Your task to perform on an android device: check battery use Image 0: 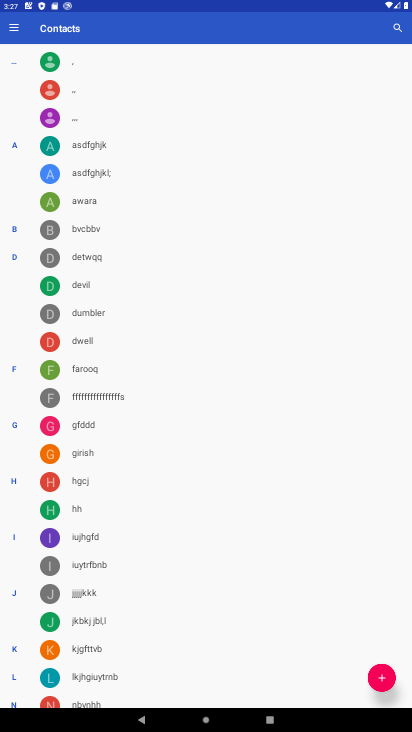
Step 0: press home button
Your task to perform on an android device: check battery use Image 1: 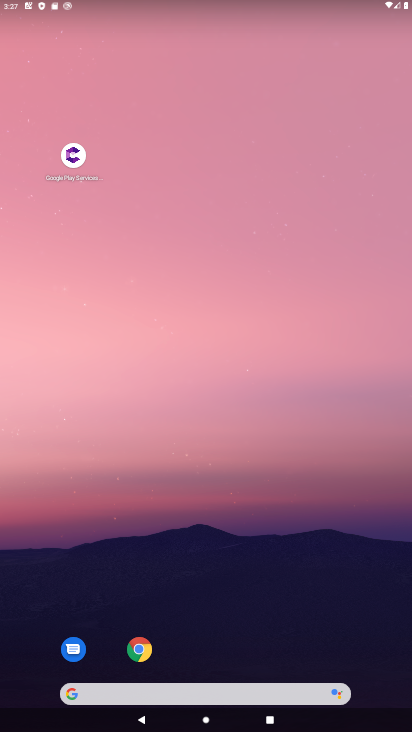
Step 1: drag from (184, 21) to (161, 95)
Your task to perform on an android device: check battery use Image 2: 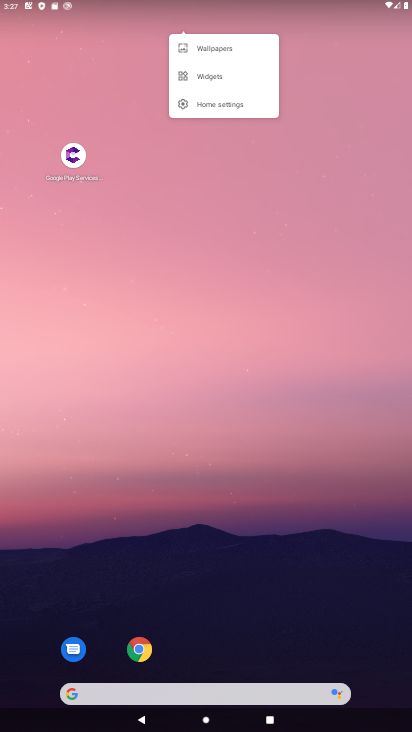
Step 2: drag from (240, 150) to (281, 36)
Your task to perform on an android device: check battery use Image 3: 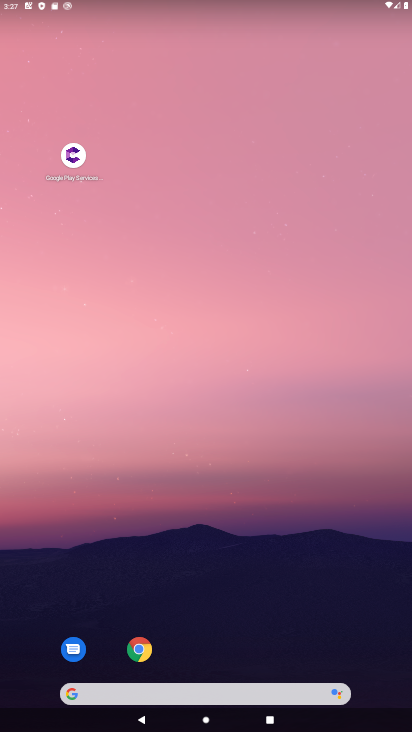
Step 3: drag from (52, 647) to (122, 138)
Your task to perform on an android device: check battery use Image 4: 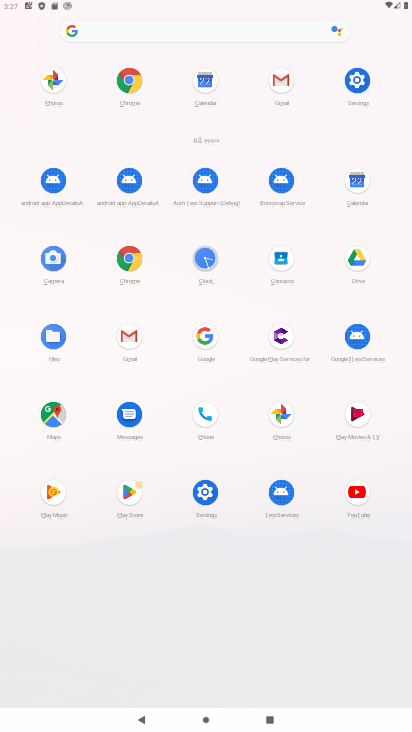
Step 4: click (202, 493)
Your task to perform on an android device: check battery use Image 5: 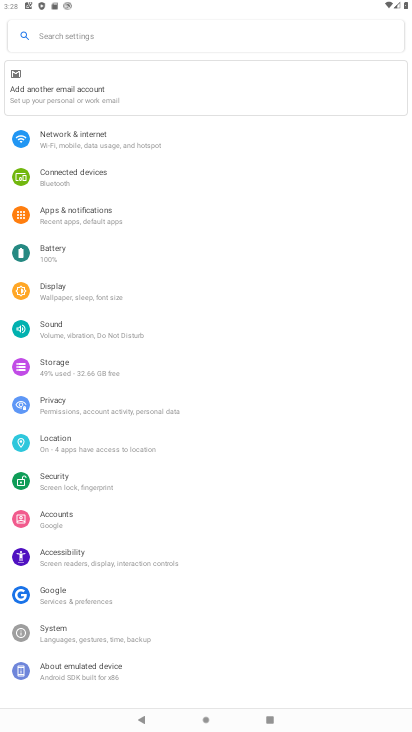
Step 5: click (62, 243)
Your task to perform on an android device: check battery use Image 6: 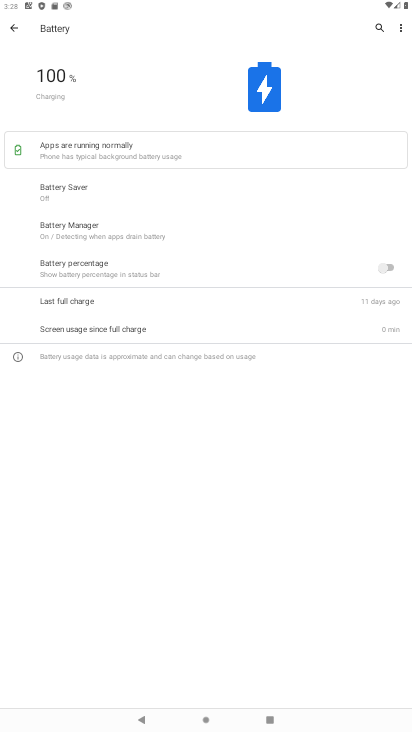
Step 6: task complete